Your task to perform on an android device: Open Chrome and go to the settings page Image 0: 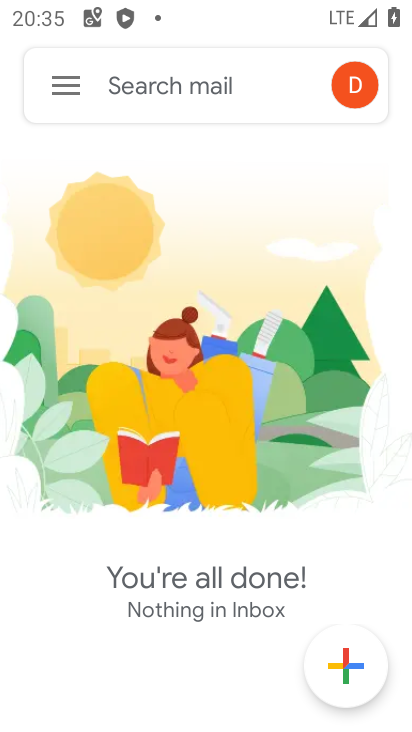
Step 0: press home button
Your task to perform on an android device: Open Chrome and go to the settings page Image 1: 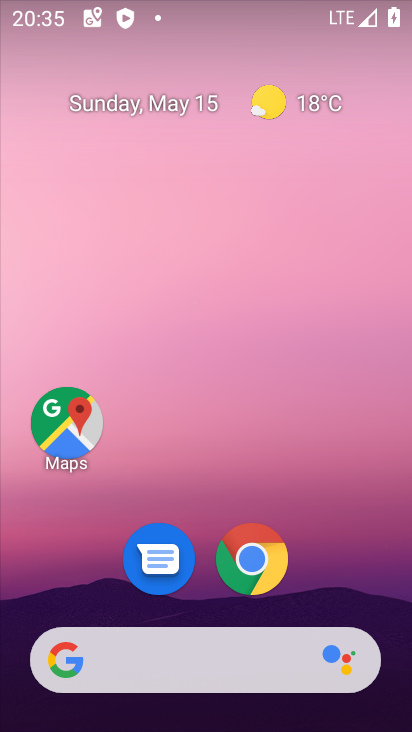
Step 1: drag from (185, 479) to (149, 113)
Your task to perform on an android device: Open Chrome and go to the settings page Image 2: 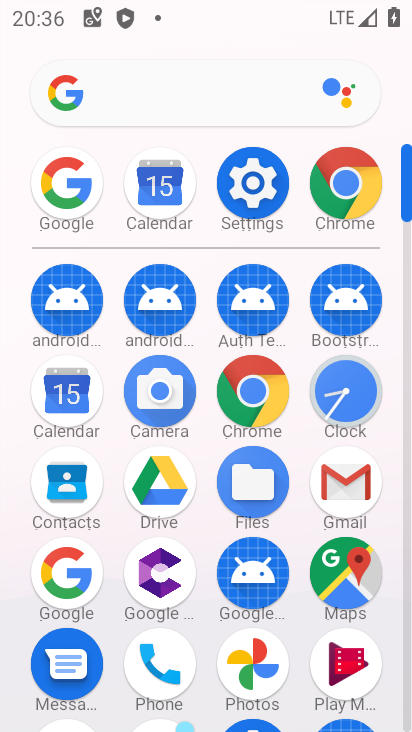
Step 2: click (256, 376)
Your task to perform on an android device: Open Chrome and go to the settings page Image 3: 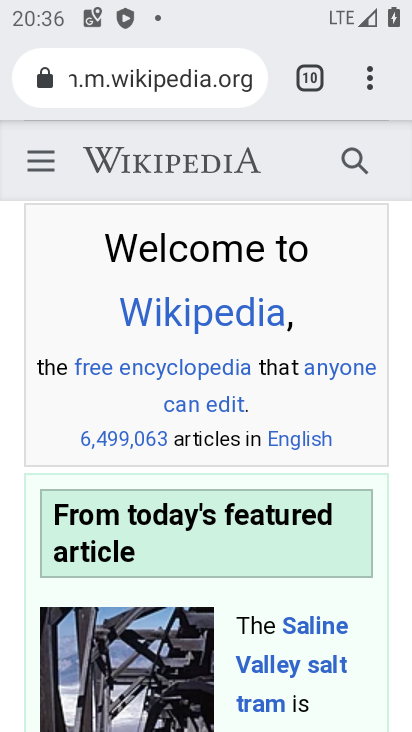
Step 3: click (374, 71)
Your task to perform on an android device: Open Chrome and go to the settings page Image 4: 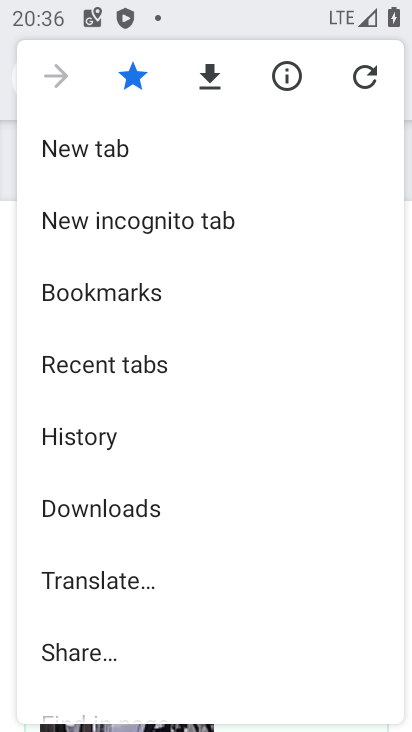
Step 4: drag from (198, 557) to (150, 266)
Your task to perform on an android device: Open Chrome and go to the settings page Image 5: 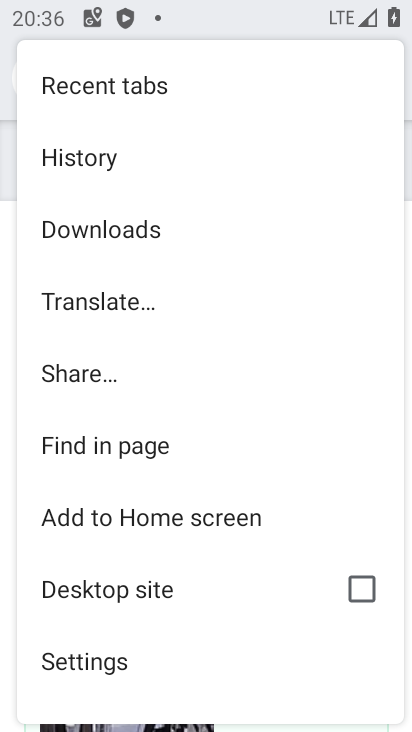
Step 5: click (85, 661)
Your task to perform on an android device: Open Chrome and go to the settings page Image 6: 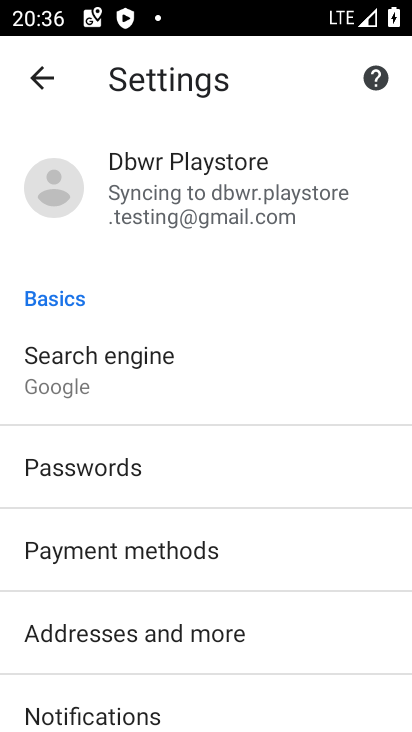
Step 6: task complete